Your task to perform on an android device: open device folders in google photos Image 0: 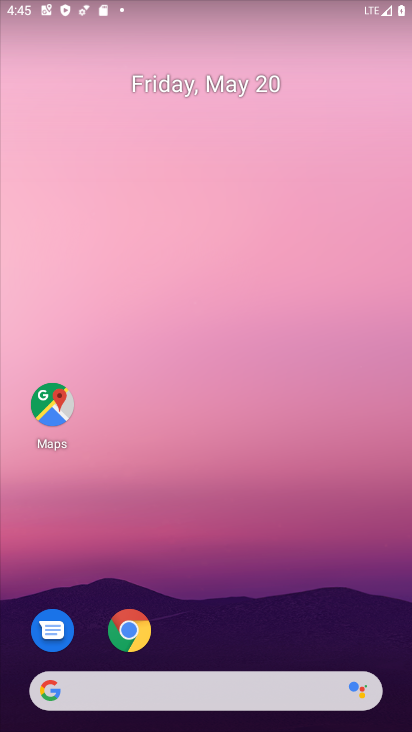
Step 0: drag from (274, 543) to (212, 129)
Your task to perform on an android device: open device folders in google photos Image 1: 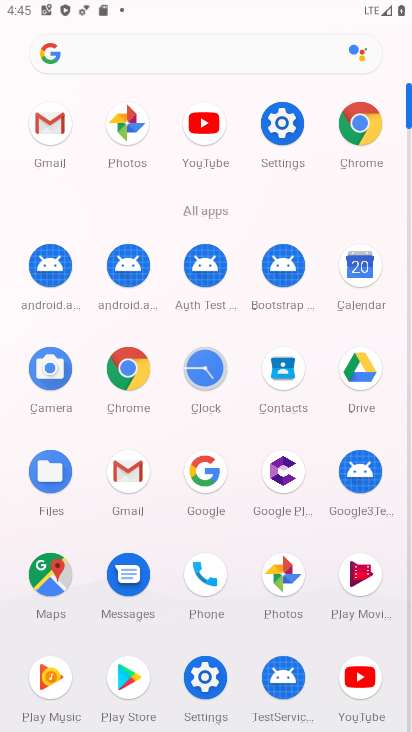
Step 1: click (125, 125)
Your task to perform on an android device: open device folders in google photos Image 2: 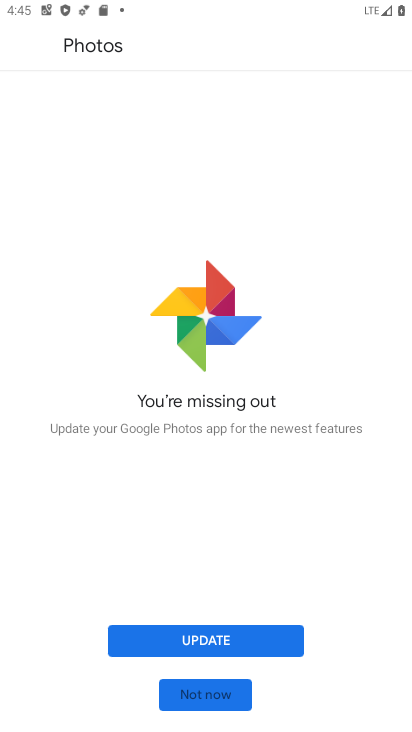
Step 2: click (210, 696)
Your task to perform on an android device: open device folders in google photos Image 3: 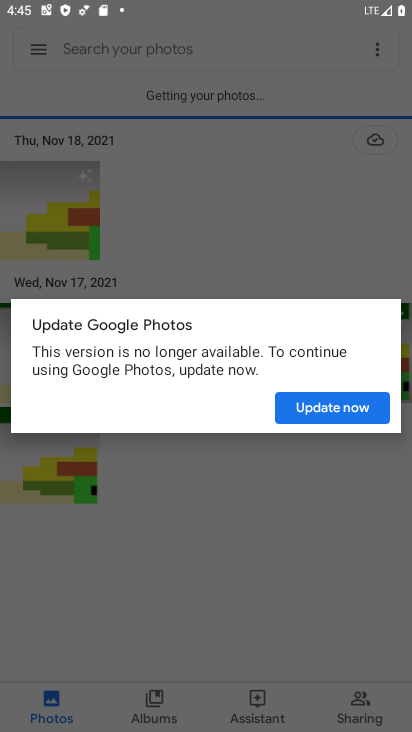
Step 3: click (353, 410)
Your task to perform on an android device: open device folders in google photos Image 4: 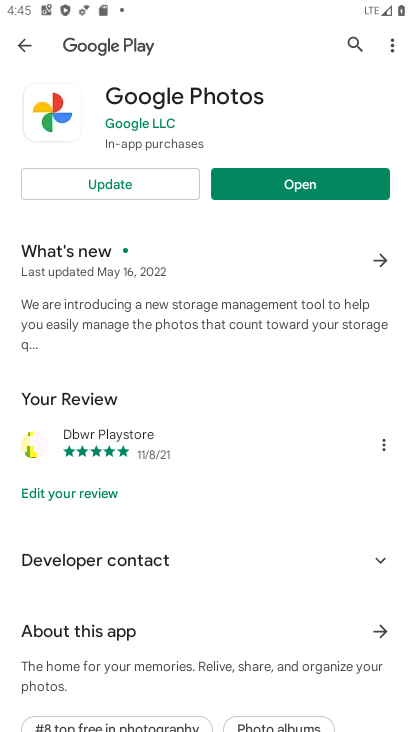
Step 4: click (301, 176)
Your task to perform on an android device: open device folders in google photos Image 5: 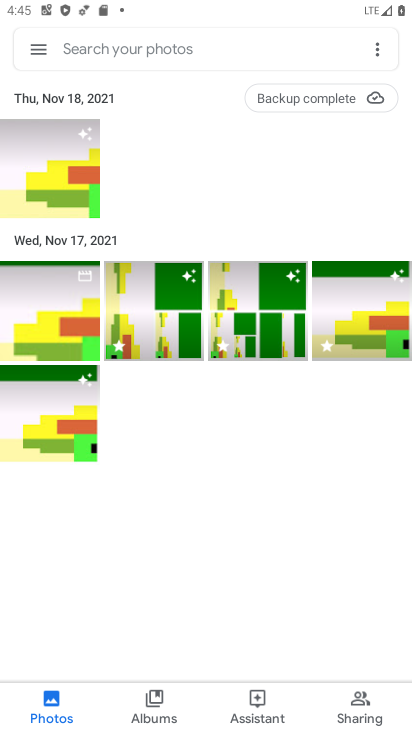
Step 5: click (32, 48)
Your task to perform on an android device: open device folders in google photos Image 6: 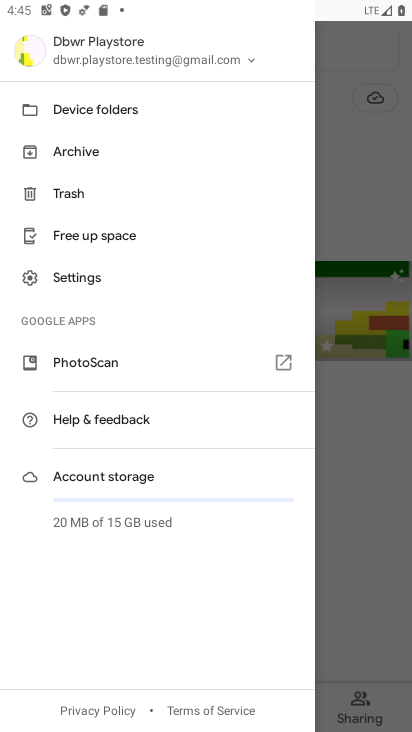
Step 6: click (81, 114)
Your task to perform on an android device: open device folders in google photos Image 7: 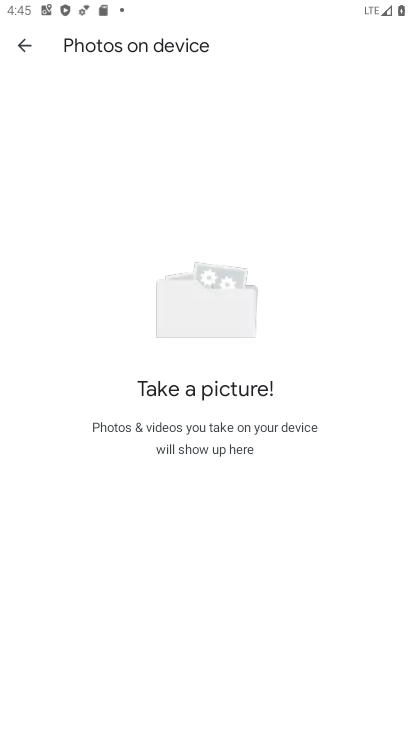
Step 7: task complete